Your task to perform on an android device: Open Maps and search for coffee Image 0: 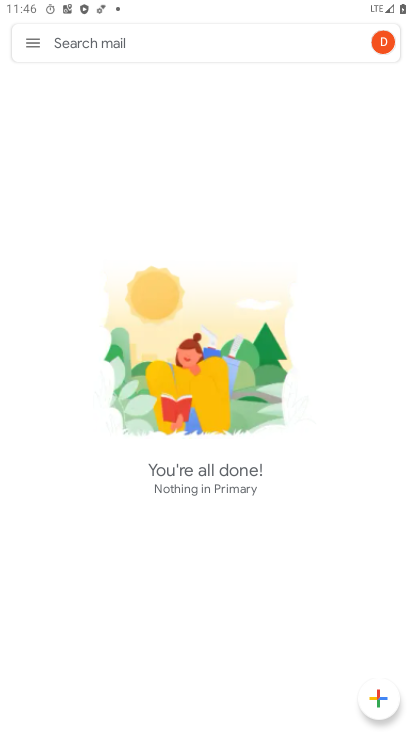
Step 0: drag from (259, 605) to (260, 81)
Your task to perform on an android device: Open Maps and search for coffee Image 1: 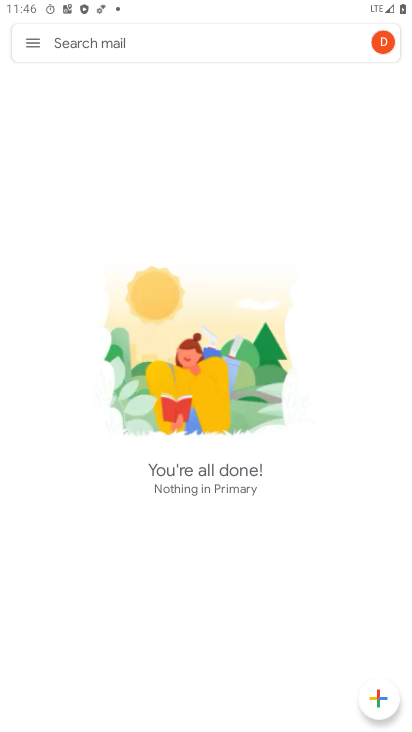
Step 1: drag from (239, 600) to (309, 224)
Your task to perform on an android device: Open Maps and search for coffee Image 2: 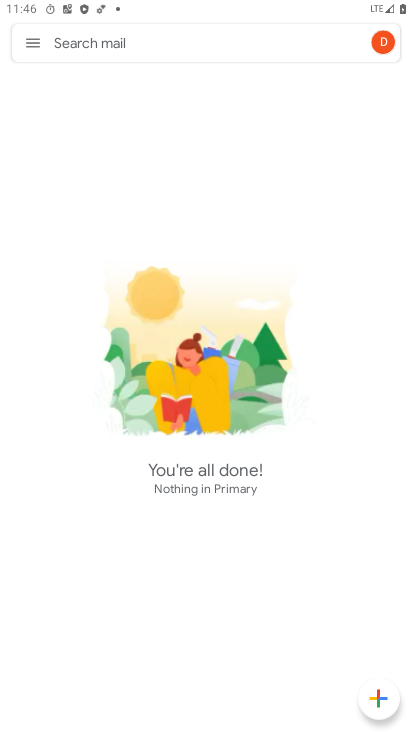
Step 2: click (24, 38)
Your task to perform on an android device: Open Maps and search for coffee Image 3: 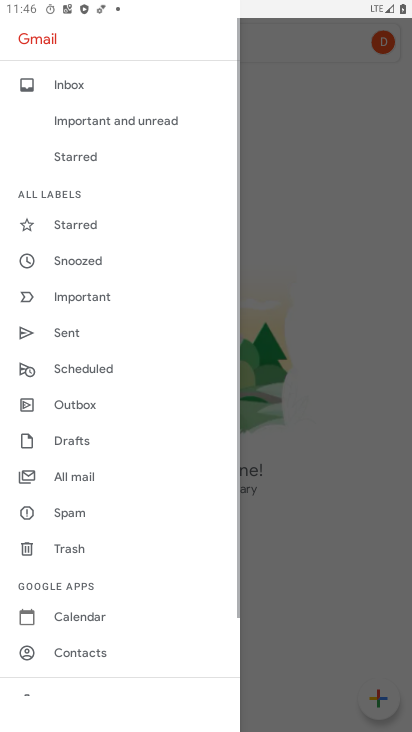
Step 3: drag from (150, 598) to (204, 328)
Your task to perform on an android device: Open Maps and search for coffee Image 4: 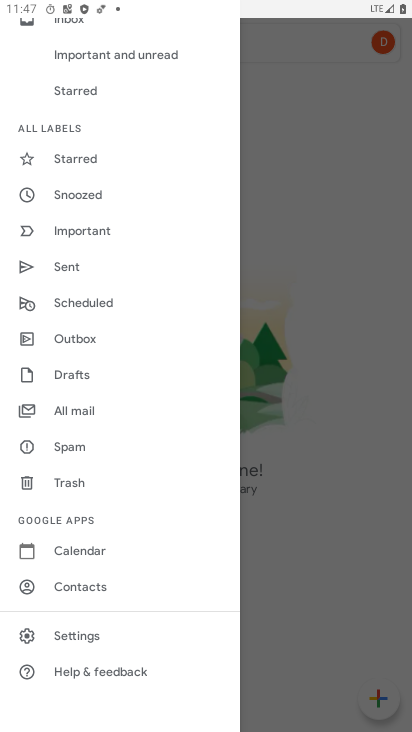
Step 4: drag from (110, 564) to (152, 244)
Your task to perform on an android device: Open Maps and search for coffee Image 5: 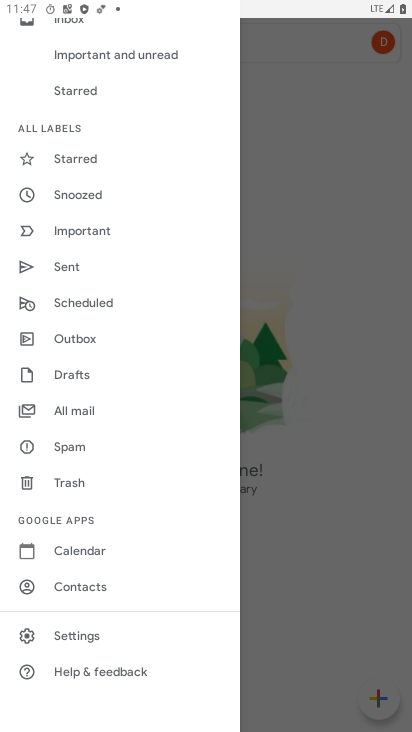
Step 5: press home button
Your task to perform on an android device: Open Maps and search for coffee Image 6: 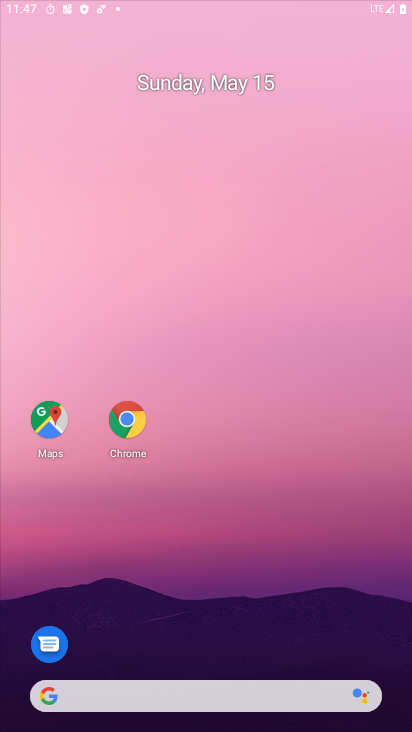
Step 6: drag from (225, 652) to (314, 167)
Your task to perform on an android device: Open Maps and search for coffee Image 7: 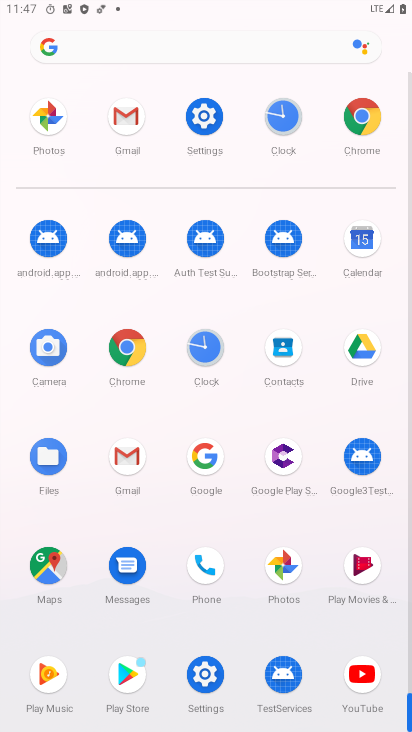
Step 7: click (40, 555)
Your task to perform on an android device: Open Maps and search for coffee Image 8: 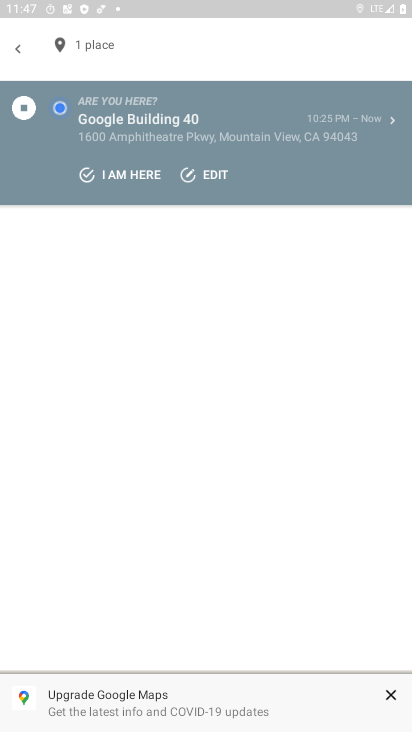
Step 8: drag from (229, 584) to (295, 219)
Your task to perform on an android device: Open Maps and search for coffee Image 9: 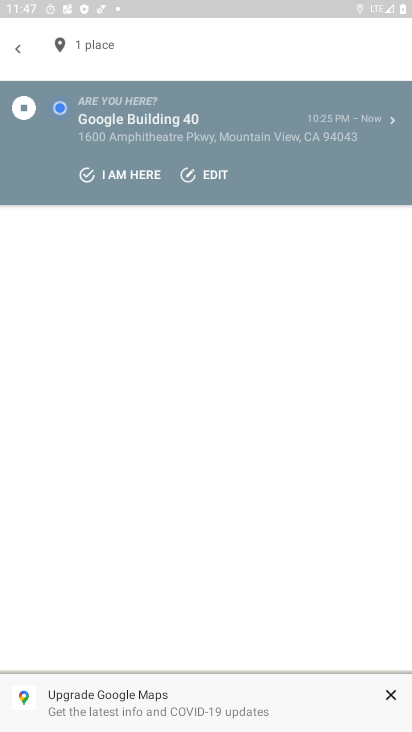
Step 9: drag from (237, 490) to (251, 323)
Your task to perform on an android device: Open Maps and search for coffee Image 10: 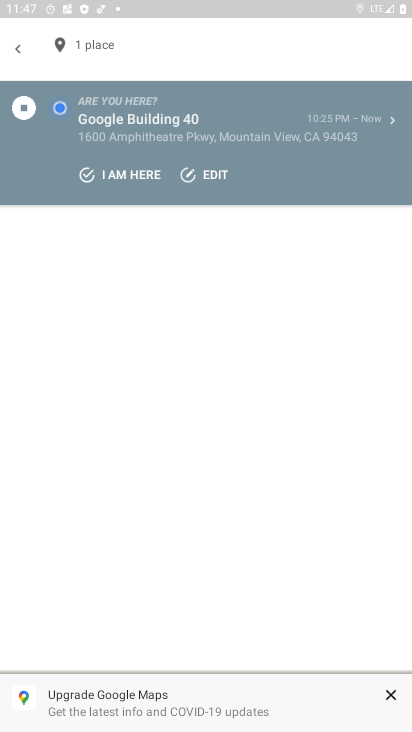
Step 10: drag from (225, 570) to (212, 273)
Your task to perform on an android device: Open Maps and search for coffee Image 11: 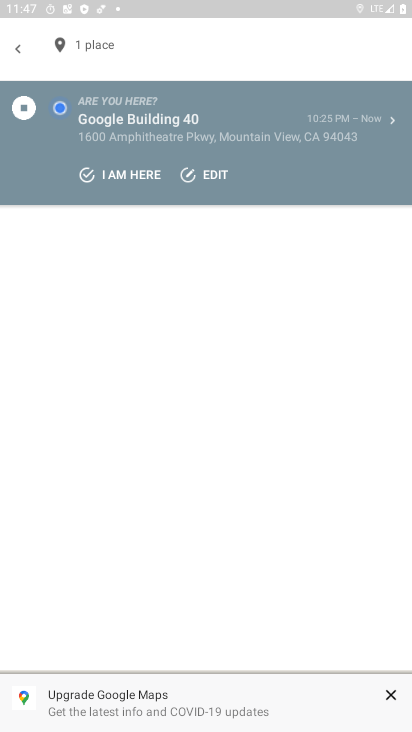
Step 11: press back button
Your task to perform on an android device: Open Maps and search for coffee Image 12: 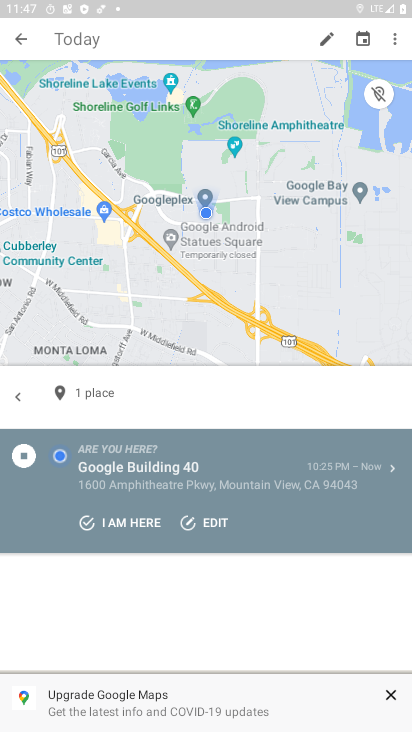
Step 12: press back button
Your task to perform on an android device: Open Maps and search for coffee Image 13: 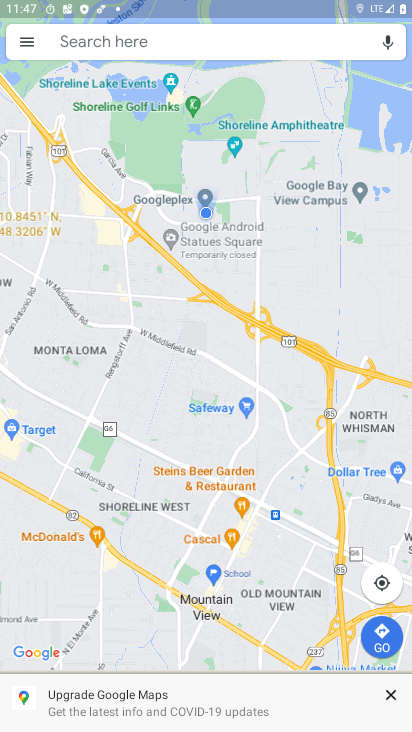
Step 13: click (184, 25)
Your task to perform on an android device: Open Maps and search for coffee Image 14: 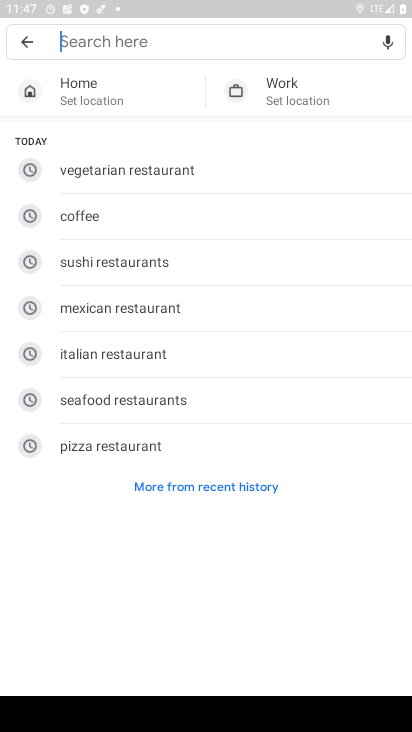
Step 14: click (104, 214)
Your task to perform on an android device: Open Maps and search for coffee Image 15: 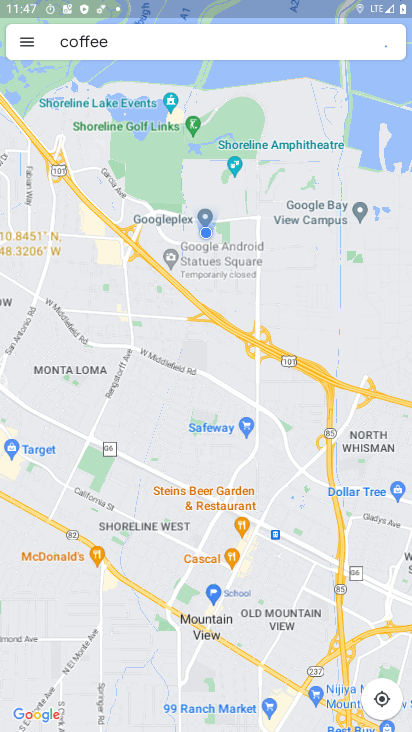
Step 15: task complete